Your task to perform on an android device: turn notification dots off Image 0: 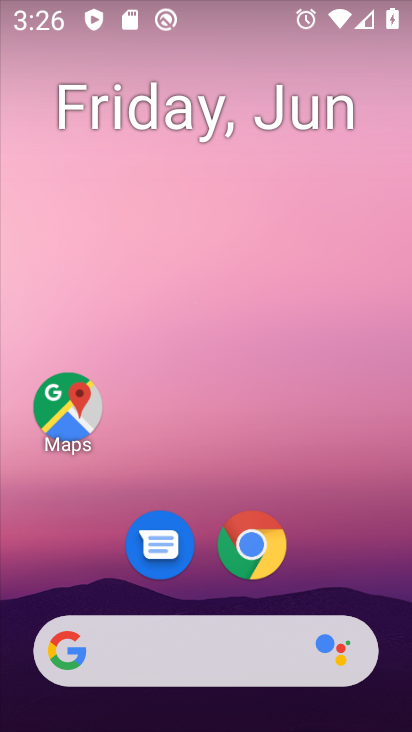
Step 0: drag from (305, 522) to (409, 189)
Your task to perform on an android device: turn notification dots off Image 1: 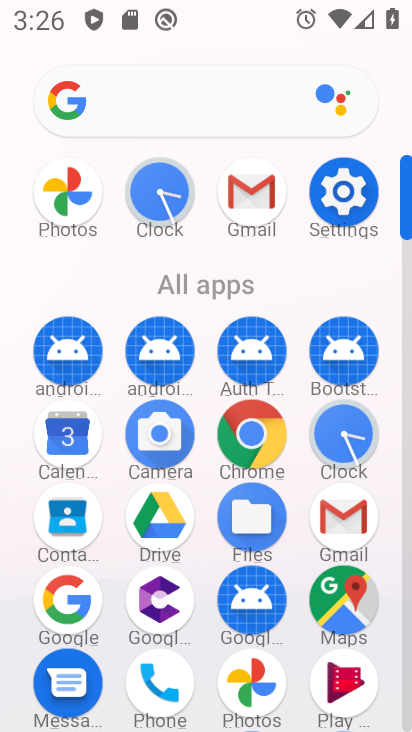
Step 1: click (342, 195)
Your task to perform on an android device: turn notification dots off Image 2: 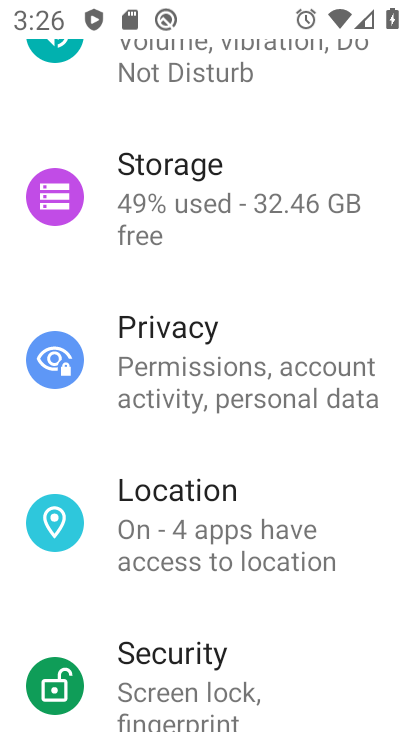
Step 2: drag from (278, 238) to (254, 597)
Your task to perform on an android device: turn notification dots off Image 3: 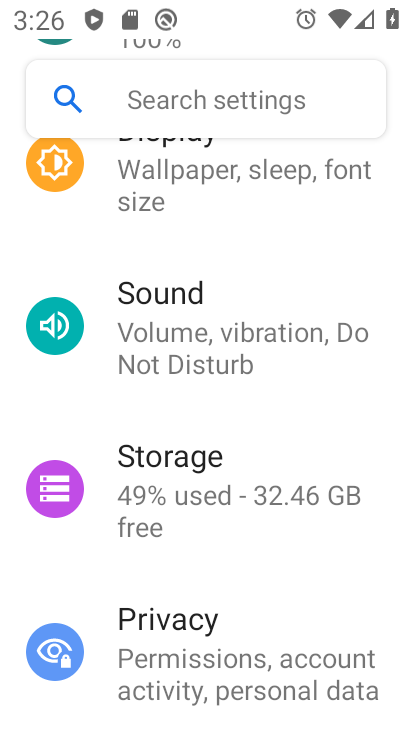
Step 3: drag from (234, 210) to (216, 473)
Your task to perform on an android device: turn notification dots off Image 4: 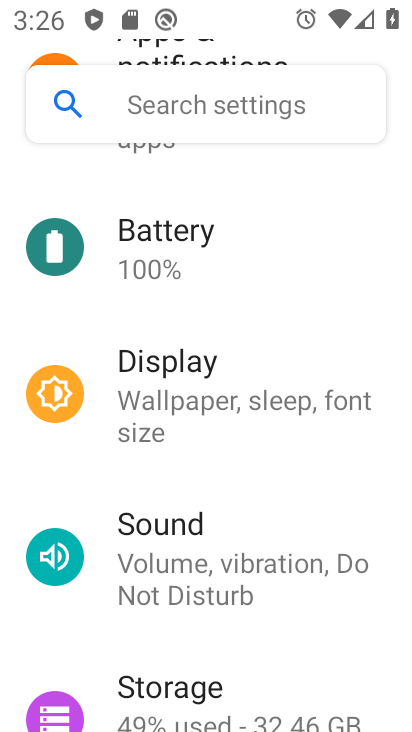
Step 4: drag from (191, 383) to (171, 614)
Your task to perform on an android device: turn notification dots off Image 5: 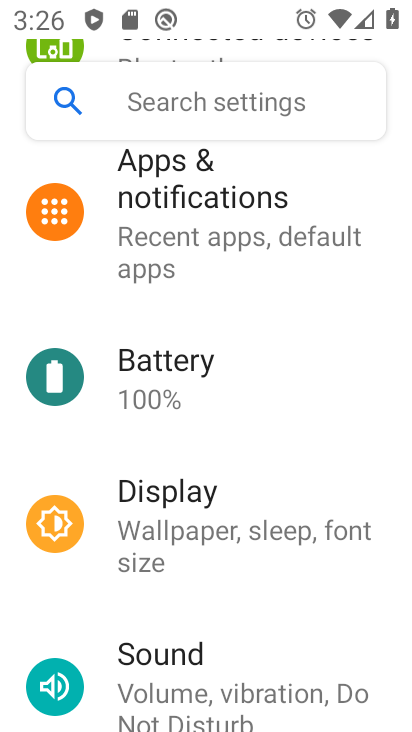
Step 5: click (269, 179)
Your task to perform on an android device: turn notification dots off Image 6: 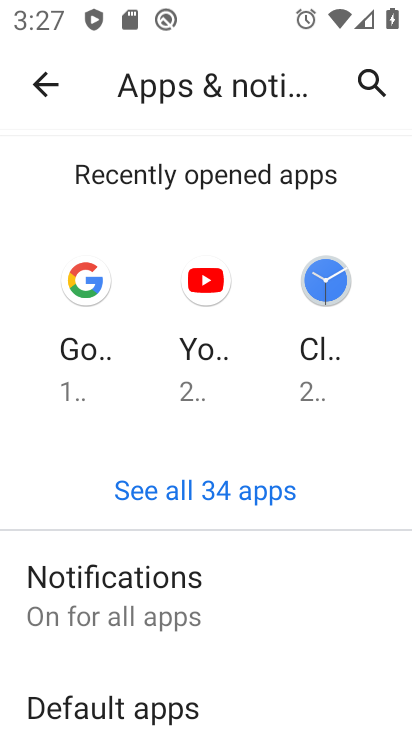
Step 6: click (168, 633)
Your task to perform on an android device: turn notification dots off Image 7: 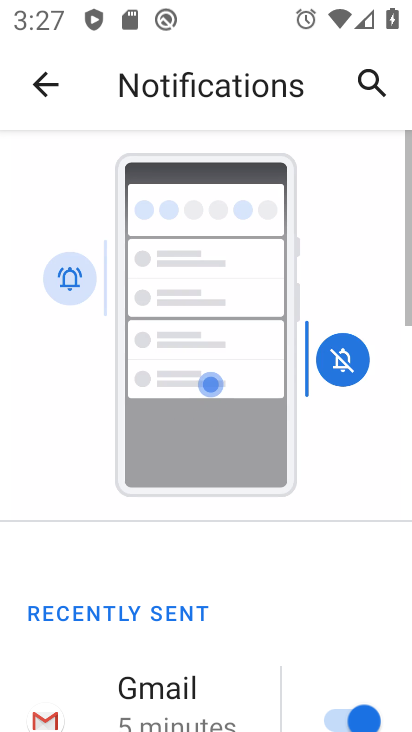
Step 7: drag from (167, 641) to (275, 155)
Your task to perform on an android device: turn notification dots off Image 8: 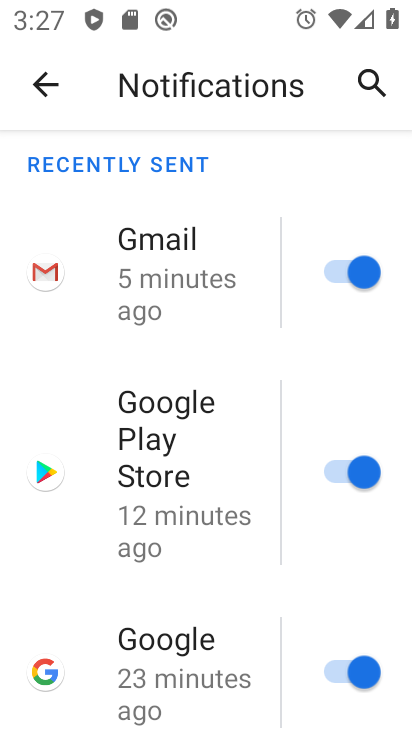
Step 8: drag from (110, 693) to (199, 88)
Your task to perform on an android device: turn notification dots off Image 9: 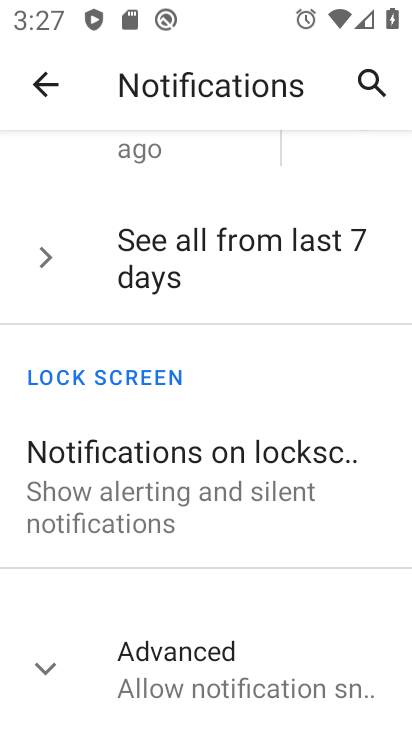
Step 9: click (167, 675)
Your task to perform on an android device: turn notification dots off Image 10: 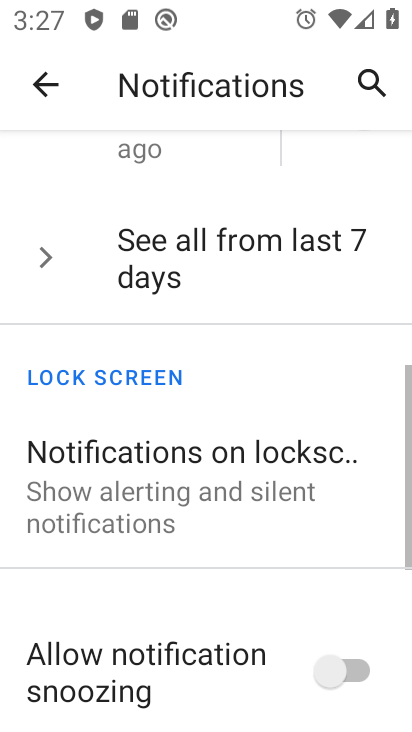
Step 10: drag from (181, 605) to (255, 165)
Your task to perform on an android device: turn notification dots off Image 11: 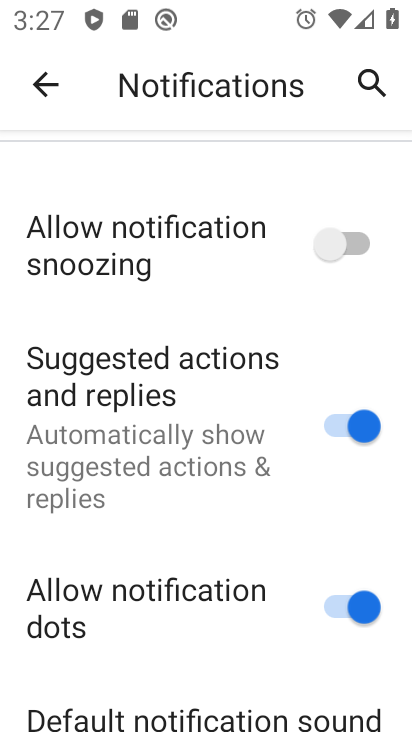
Step 11: click (369, 595)
Your task to perform on an android device: turn notification dots off Image 12: 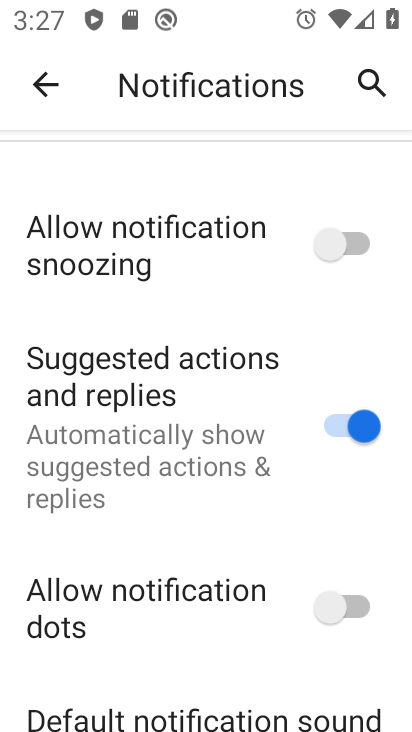
Step 12: task complete